Your task to perform on an android device: check google app version Image 0: 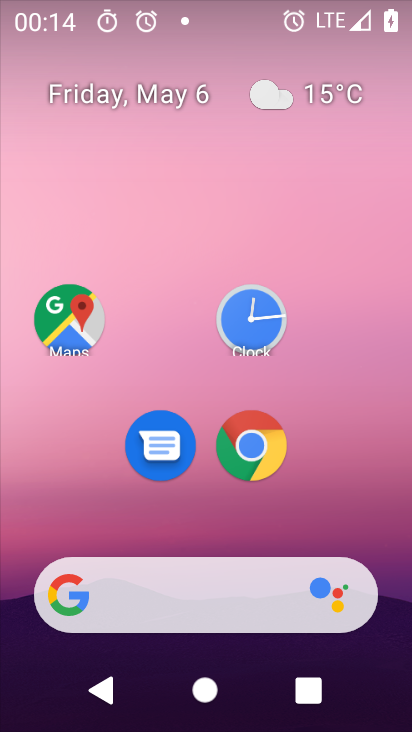
Step 0: drag from (177, 609) to (193, 98)
Your task to perform on an android device: check google app version Image 1: 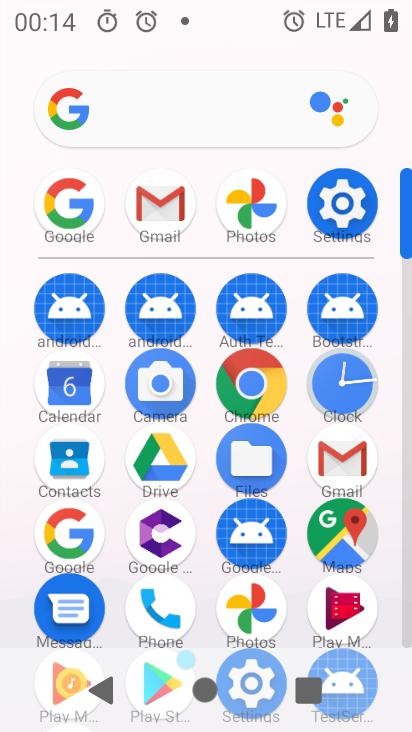
Step 1: click (75, 555)
Your task to perform on an android device: check google app version Image 2: 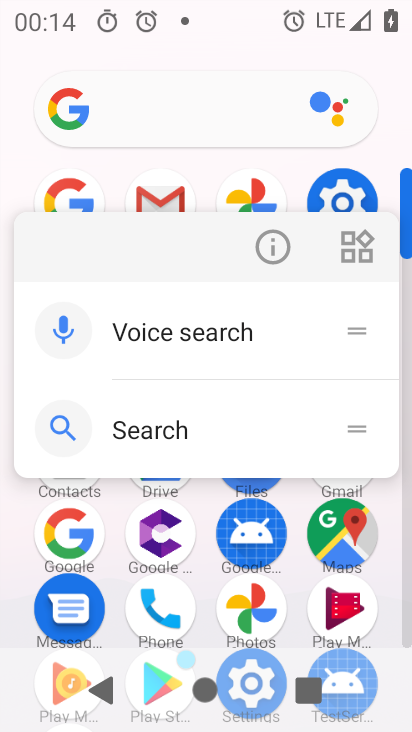
Step 2: click (272, 262)
Your task to perform on an android device: check google app version Image 3: 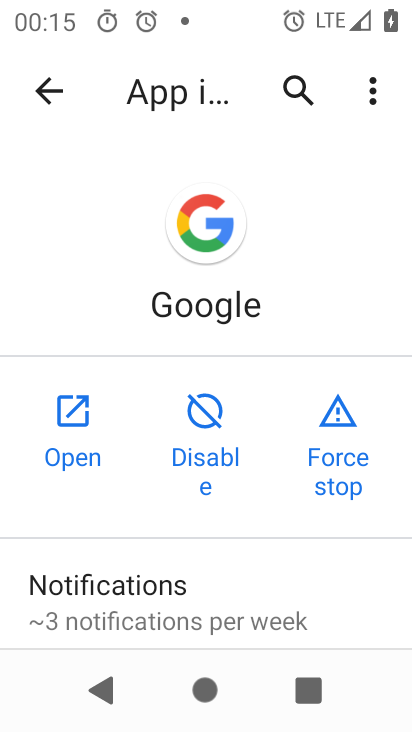
Step 3: drag from (238, 588) to (239, 104)
Your task to perform on an android device: check google app version Image 4: 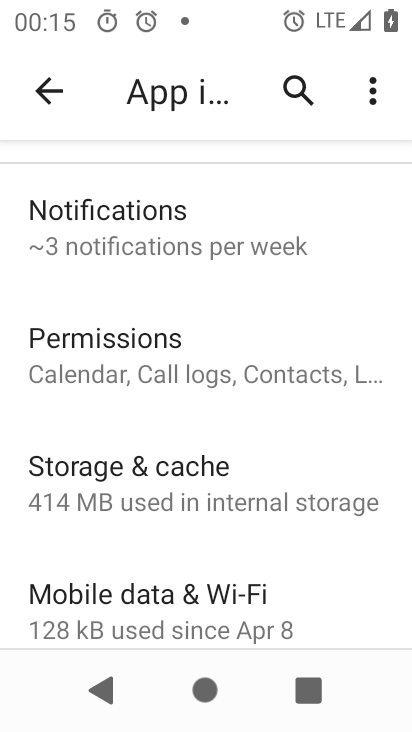
Step 4: drag from (128, 611) to (126, 7)
Your task to perform on an android device: check google app version Image 5: 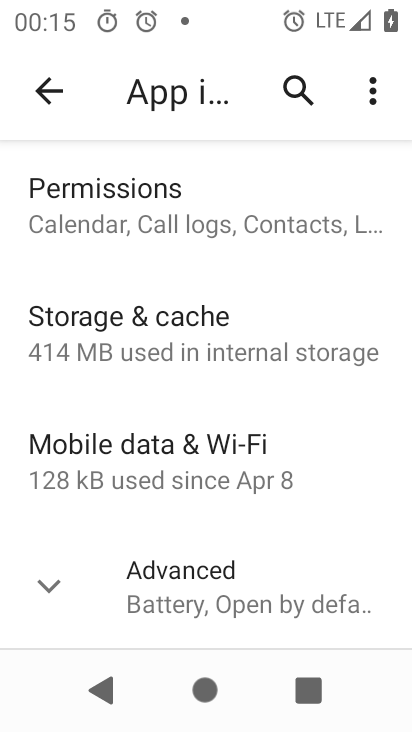
Step 5: drag from (186, 548) to (221, 172)
Your task to perform on an android device: check google app version Image 6: 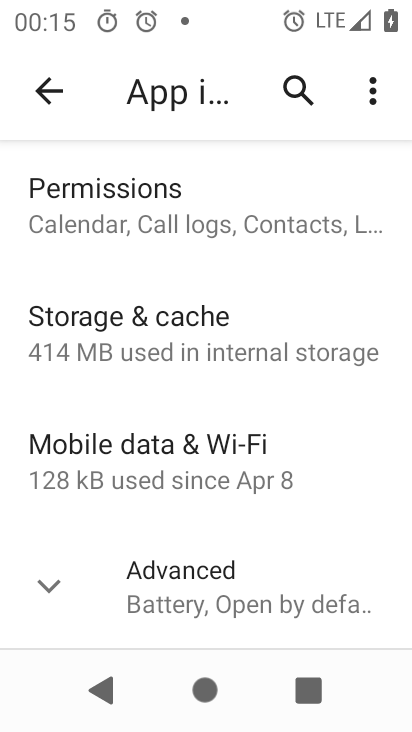
Step 6: click (180, 587)
Your task to perform on an android device: check google app version Image 7: 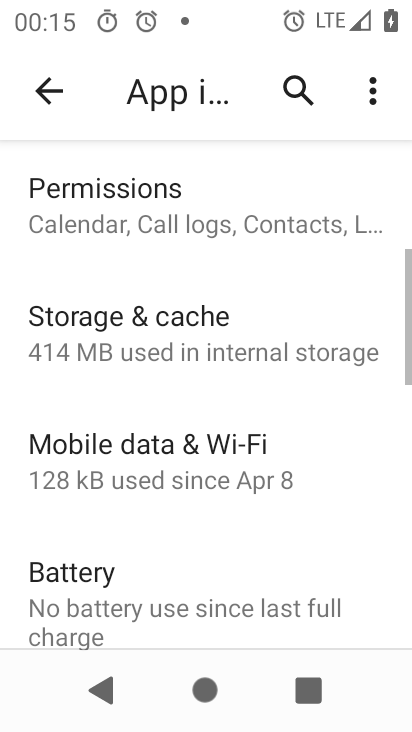
Step 7: task complete